Your task to perform on an android device: Open Android settings Image 0: 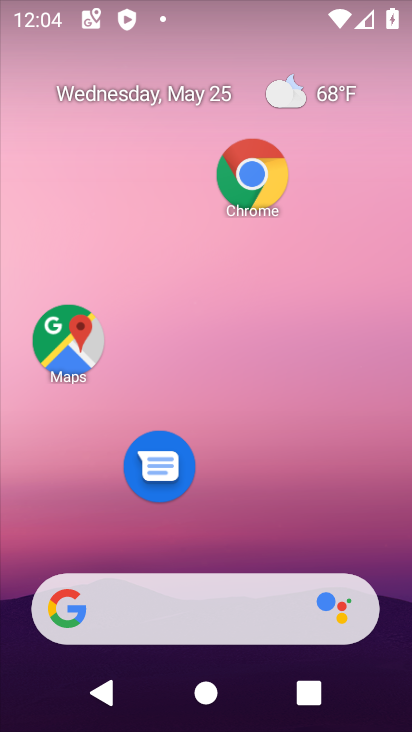
Step 0: drag from (214, 522) to (320, 9)
Your task to perform on an android device: Open Android settings Image 1: 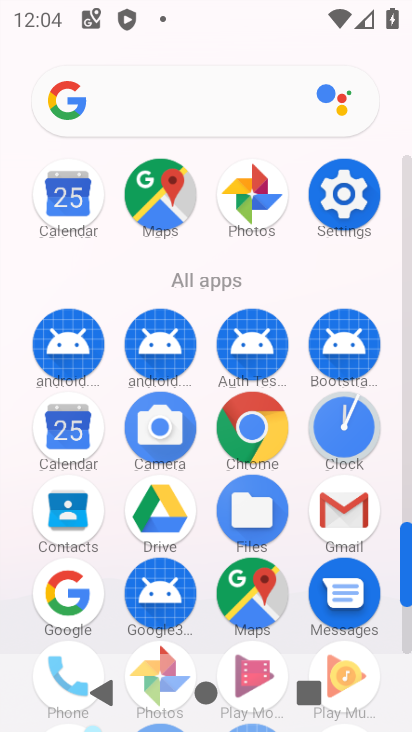
Step 1: click (342, 214)
Your task to perform on an android device: Open Android settings Image 2: 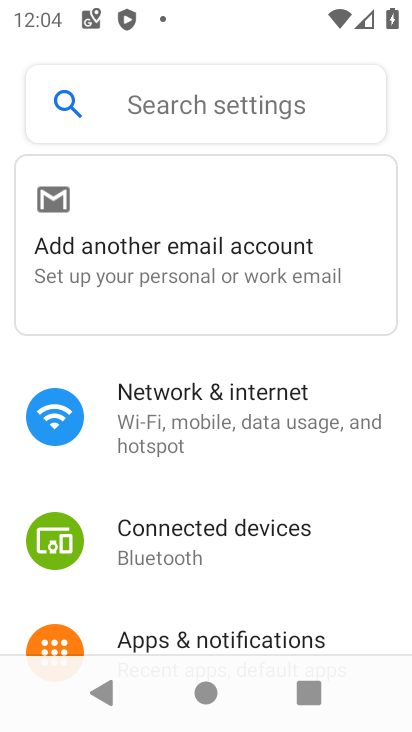
Step 2: task complete